Your task to perform on an android device: open app "Airtel Thanks" Image 0: 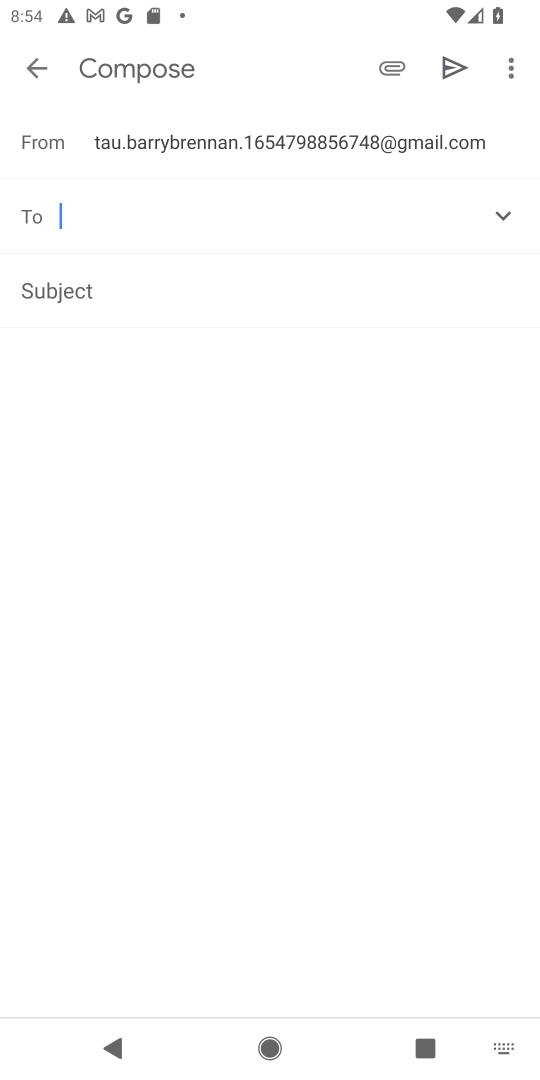
Step 0: press home button
Your task to perform on an android device: open app "Airtel Thanks" Image 1: 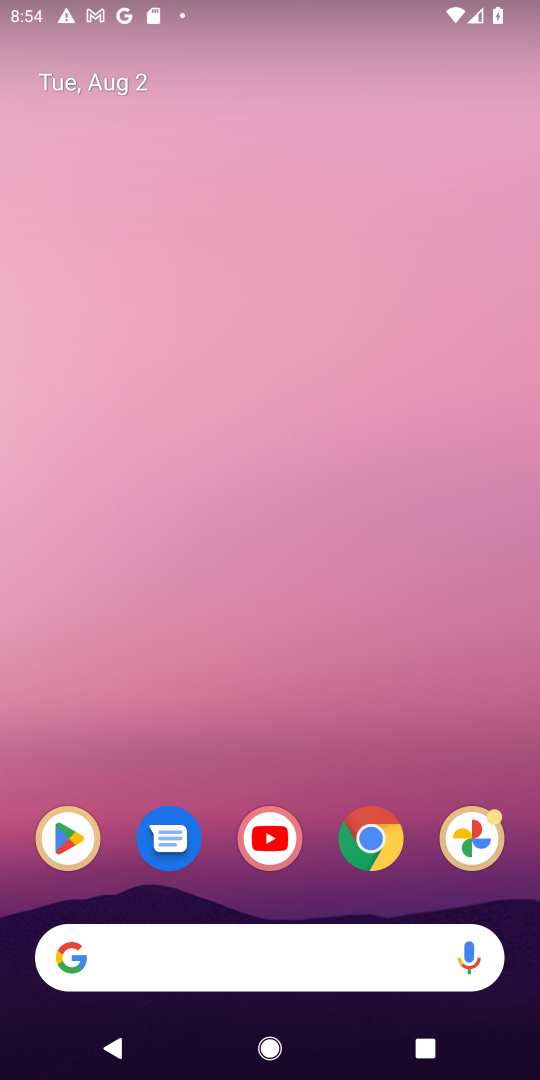
Step 1: drag from (310, 512) to (292, 65)
Your task to perform on an android device: open app "Airtel Thanks" Image 2: 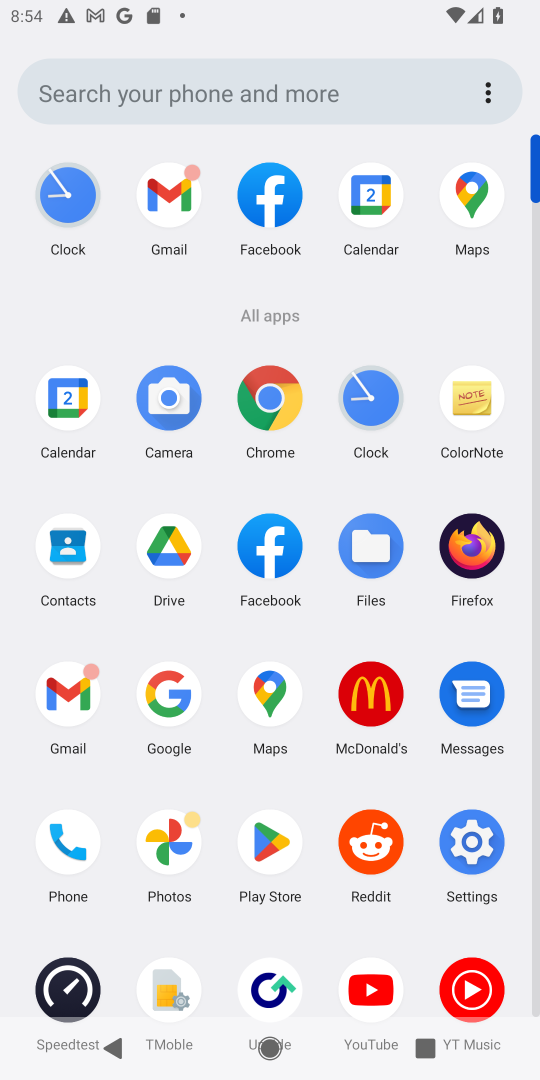
Step 2: click (270, 843)
Your task to perform on an android device: open app "Airtel Thanks" Image 3: 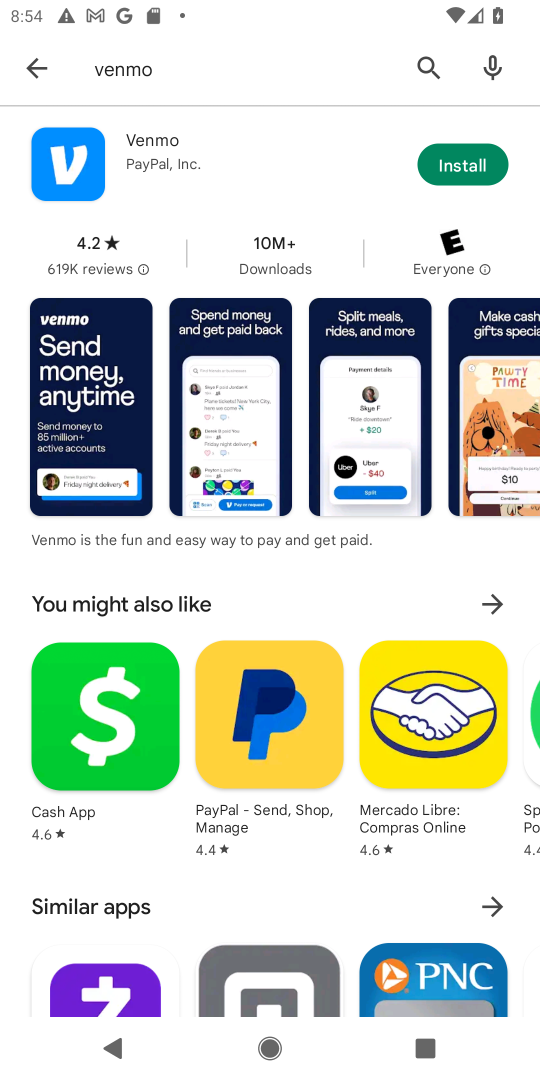
Step 3: click (423, 58)
Your task to perform on an android device: open app "Airtel Thanks" Image 4: 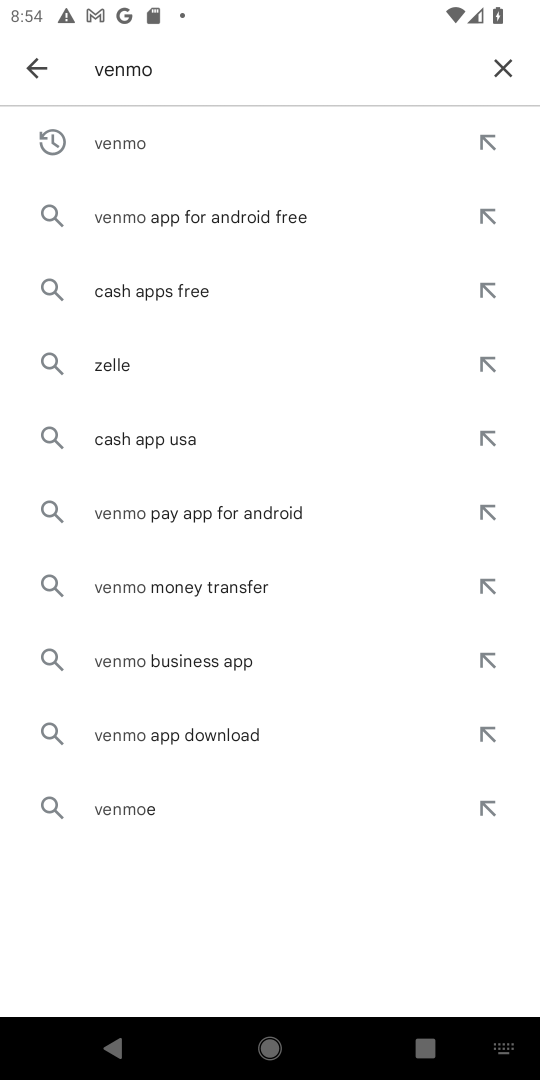
Step 4: click (512, 65)
Your task to perform on an android device: open app "Airtel Thanks" Image 5: 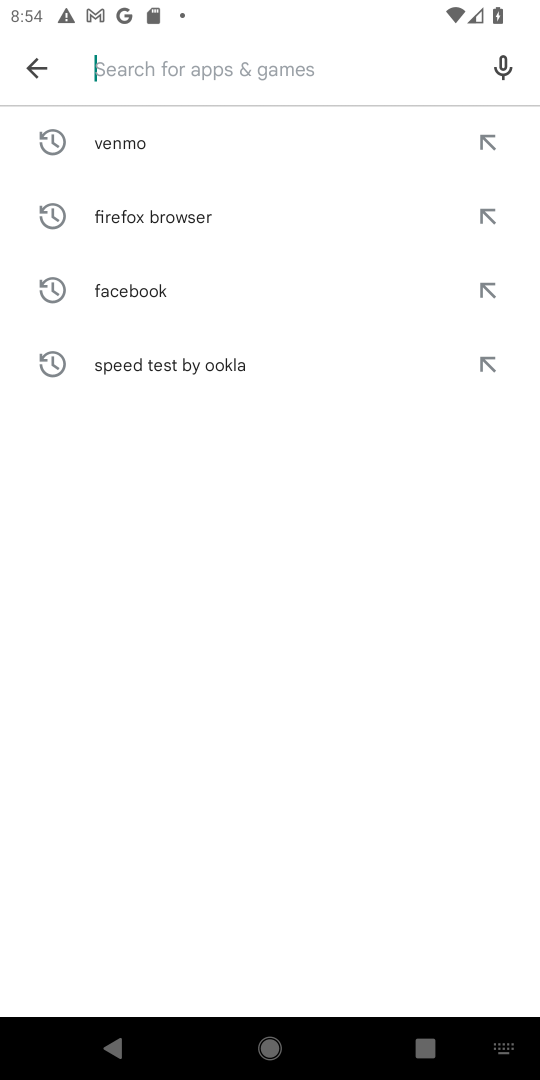
Step 5: type "airtel thanks"
Your task to perform on an android device: open app "Airtel Thanks" Image 6: 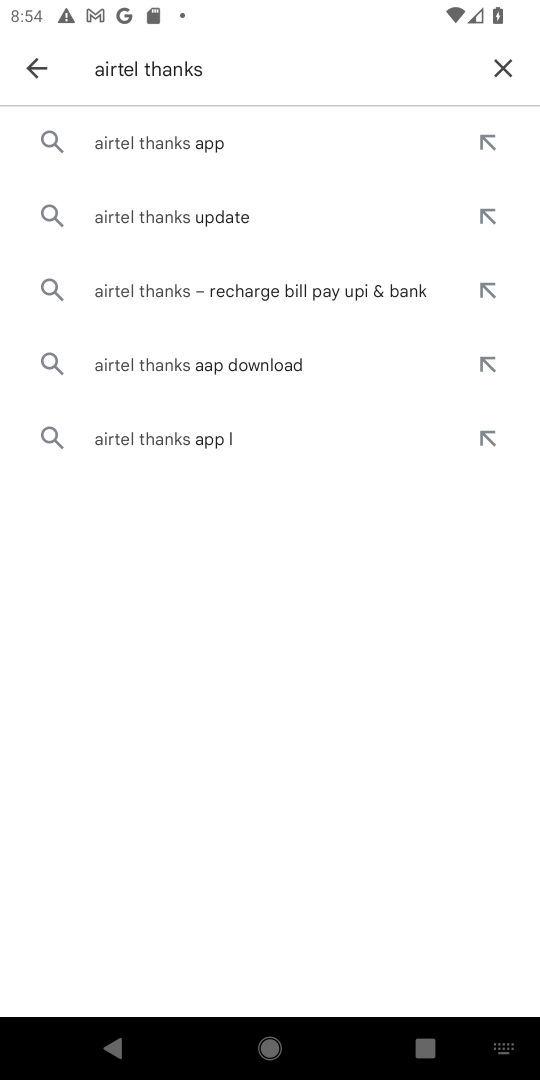
Step 6: click (255, 145)
Your task to perform on an android device: open app "Airtel Thanks" Image 7: 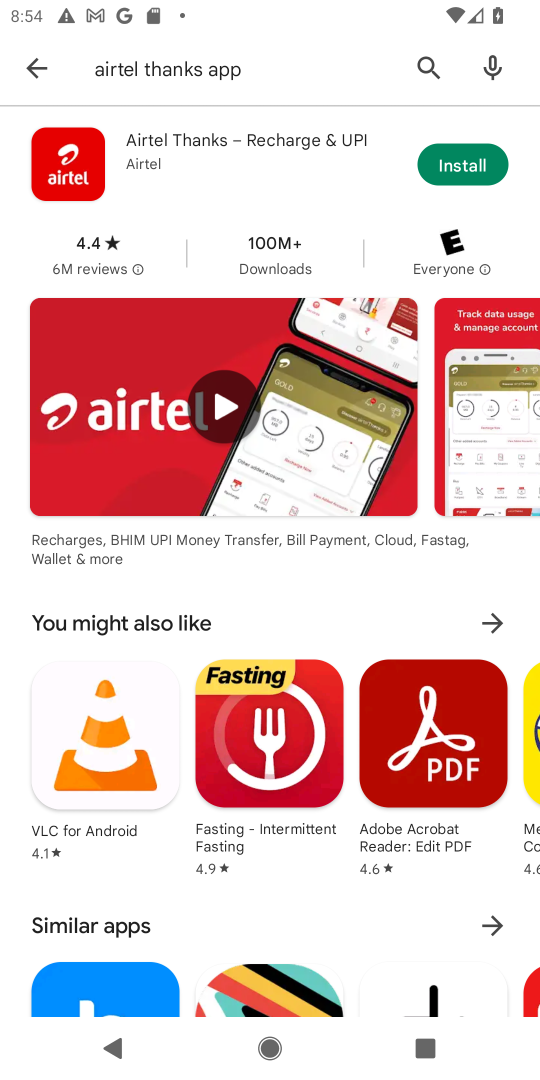
Step 7: task complete